Your task to perform on an android device: See recent photos Image 0: 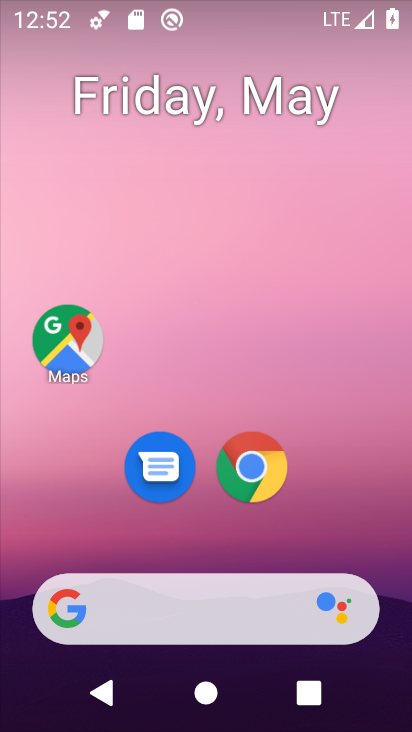
Step 0: drag from (366, 516) to (345, 48)
Your task to perform on an android device: See recent photos Image 1: 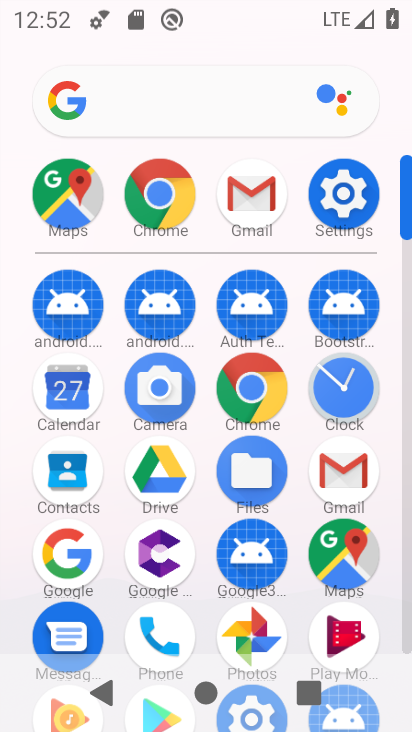
Step 1: click (254, 643)
Your task to perform on an android device: See recent photos Image 2: 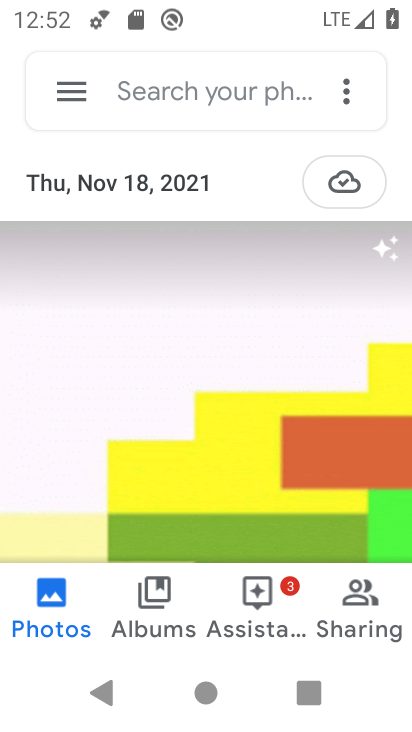
Step 2: task complete